Your task to perform on an android device: change the clock display to show seconds Image 0: 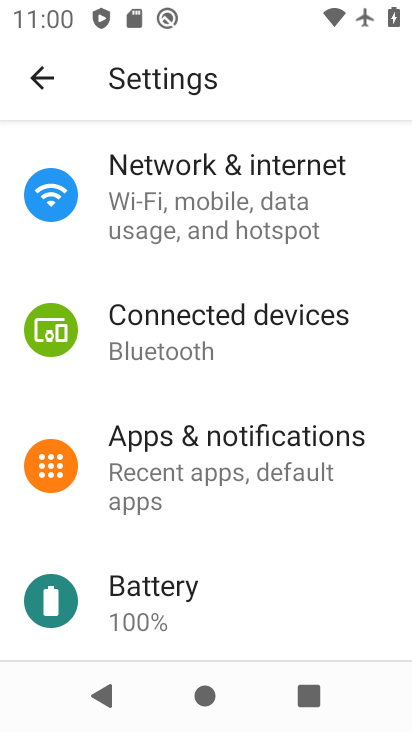
Step 0: press home button
Your task to perform on an android device: change the clock display to show seconds Image 1: 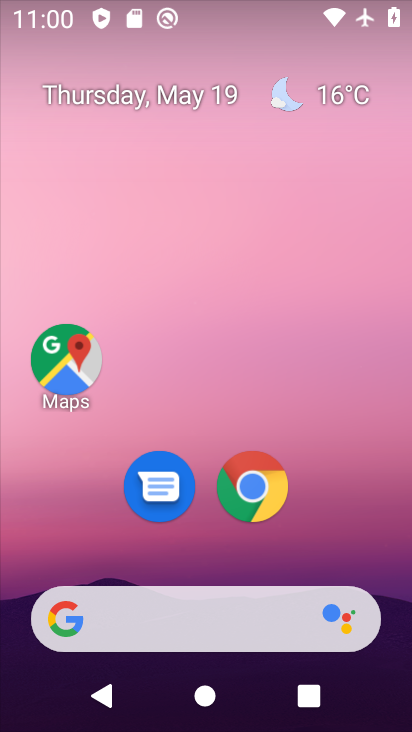
Step 1: drag from (355, 519) to (347, 112)
Your task to perform on an android device: change the clock display to show seconds Image 2: 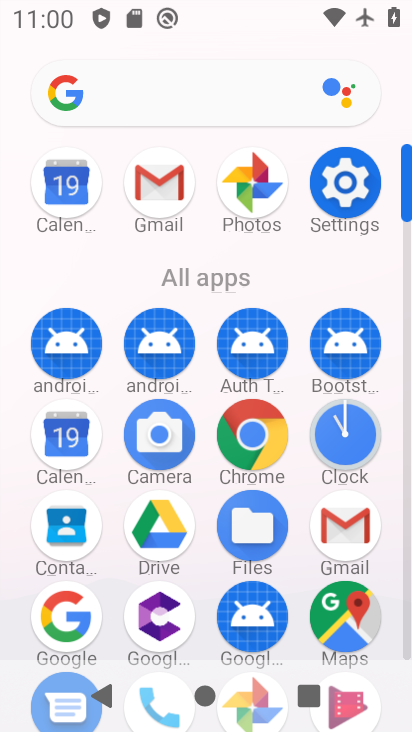
Step 2: click (336, 404)
Your task to perform on an android device: change the clock display to show seconds Image 3: 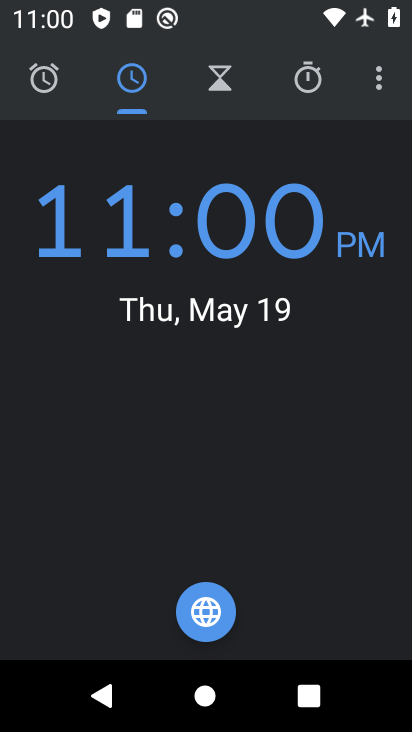
Step 3: click (366, 71)
Your task to perform on an android device: change the clock display to show seconds Image 4: 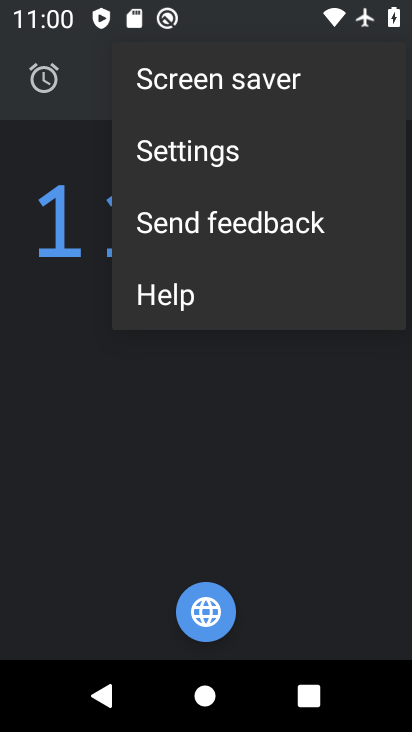
Step 4: click (293, 144)
Your task to perform on an android device: change the clock display to show seconds Image 5: 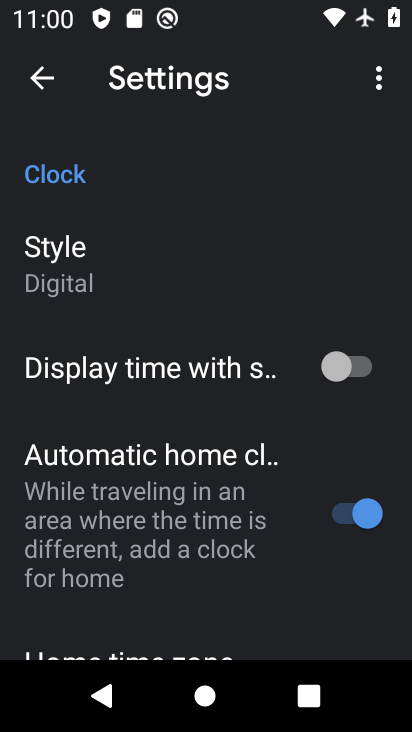
Step 5: click (347, 382)
Your task to perform on an android device: change the clock display to show seconds Image 6: 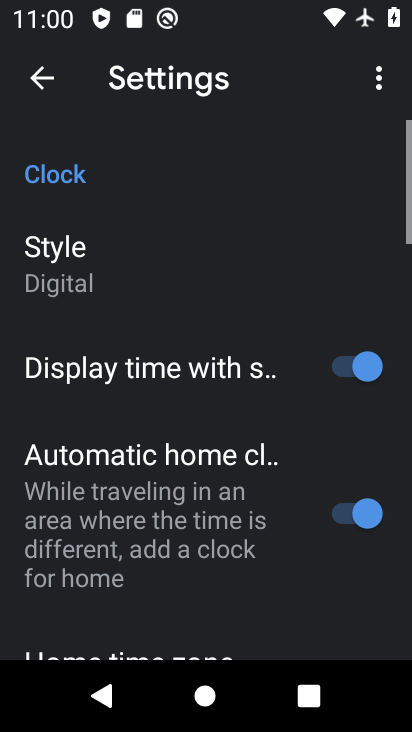
Step 6: task complete